Your task to perform on an android device: turn on priority inbox in the gmail app Image 0: 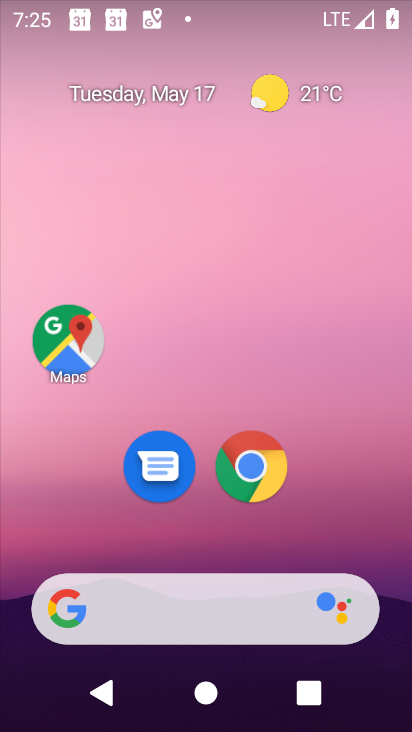
Step 0: drag from (213, 592) to (372, 112)
Your task to perform on an android device: turn on priority inbox in the gmail app Image 1: 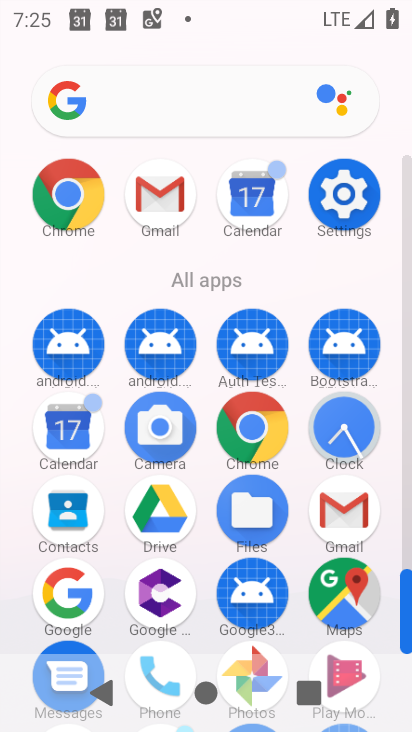
Step 1: click (152, 206)
Your task to perform on an android device: turn on priority inbox in the gmail app Image 2: 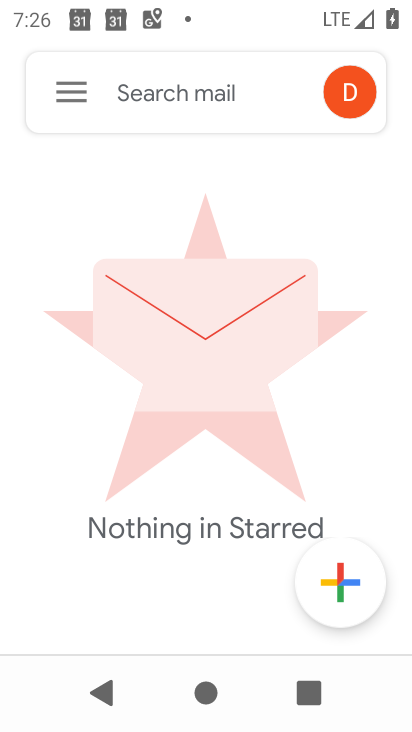
Step 2: click (75, 95)
Your task to perform on an android device: turn on priority inbox in the gmail app Image 3: 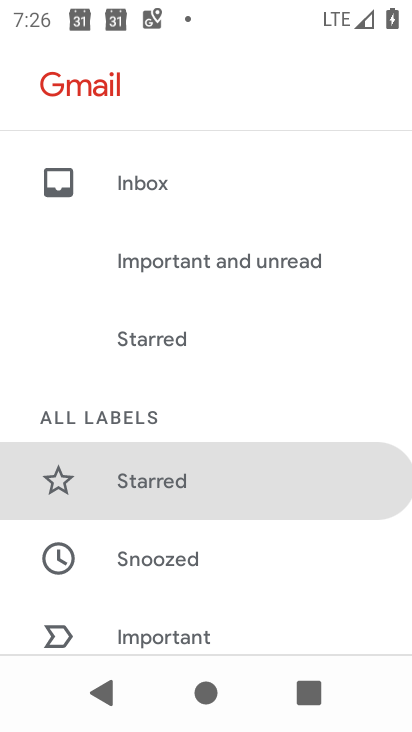
Step 3: drag from (227, 624) to (333, 88)
Your task to perform on an android device: turn on priority inbox in the gmail app Image 4: 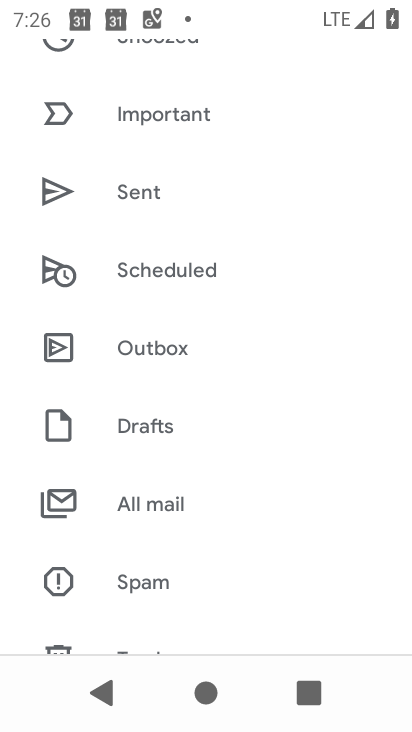
Step 4: drag from (224, 602) to (322, 95)
Your task to perform on an android device: turn on priority inbox in the gmail app Image 5: 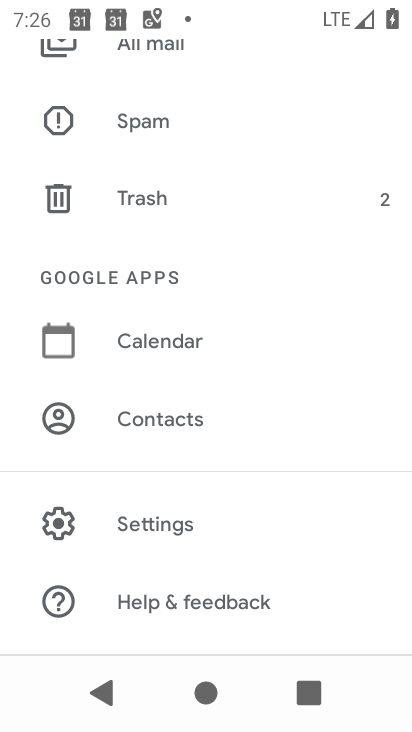
Step 5: click (179, 522)
Your task to perform on an android device: turn on priority inbox in the gmail app Image 6: 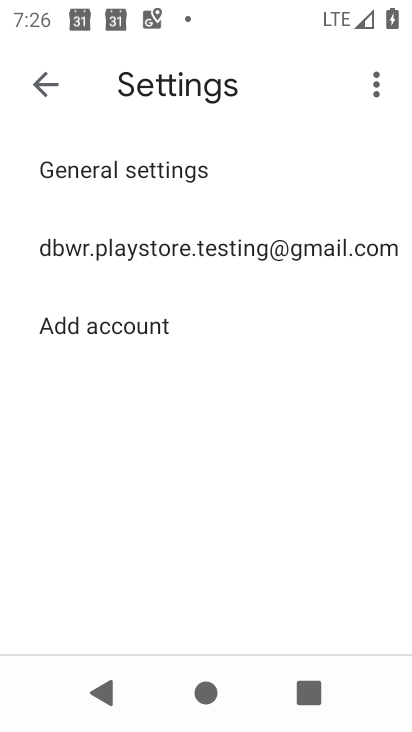
Step 6: click (221, 243)
Your task to perform on an android device: turn on priority inbox in the gmail app Image 7: 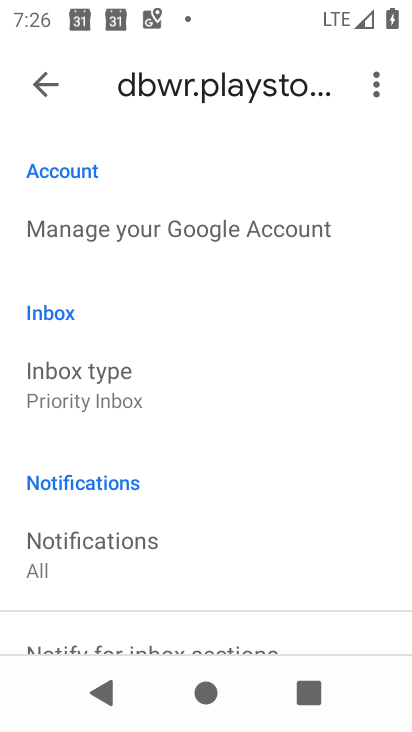
Step 7: click (114, 387)
Your task to perform on an android device: turn on priority inbox in the gmail app Image 8: 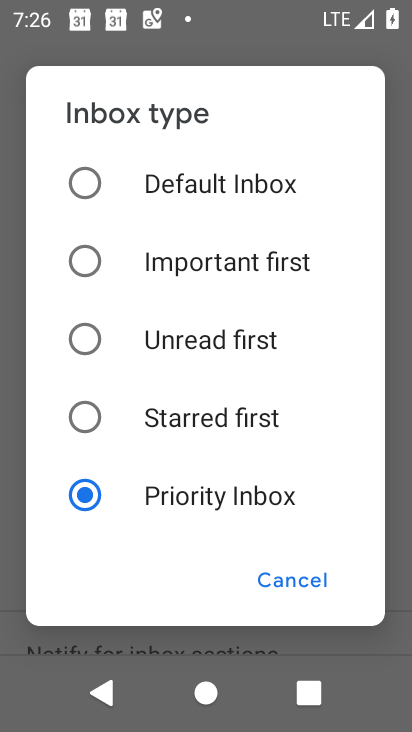
Step 8: task complete